Your task to perform on an android device: Open calendar and show me the third week of next month Image 0: 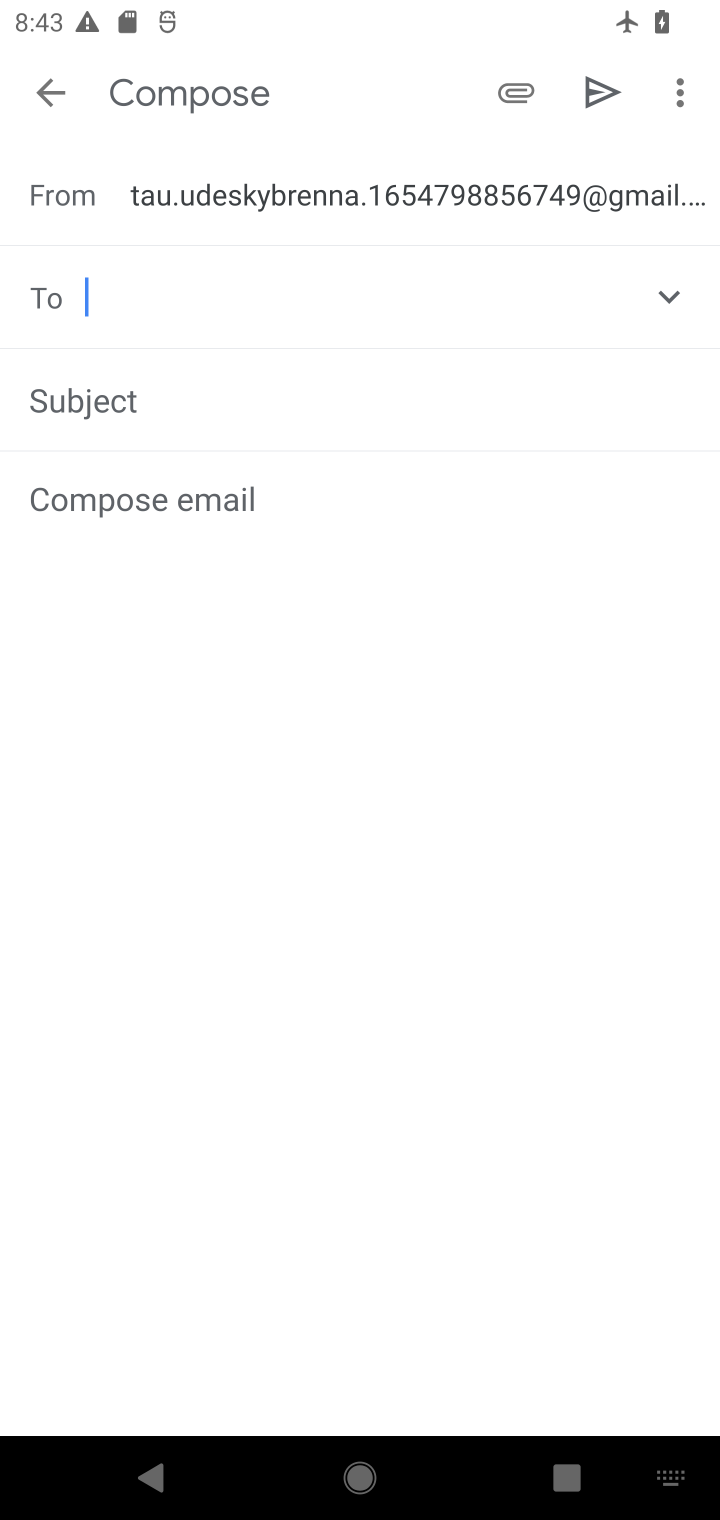
Step 0: press home button
Your task to perform on an android device: Open calendar and show me the third week of next month Image 1: 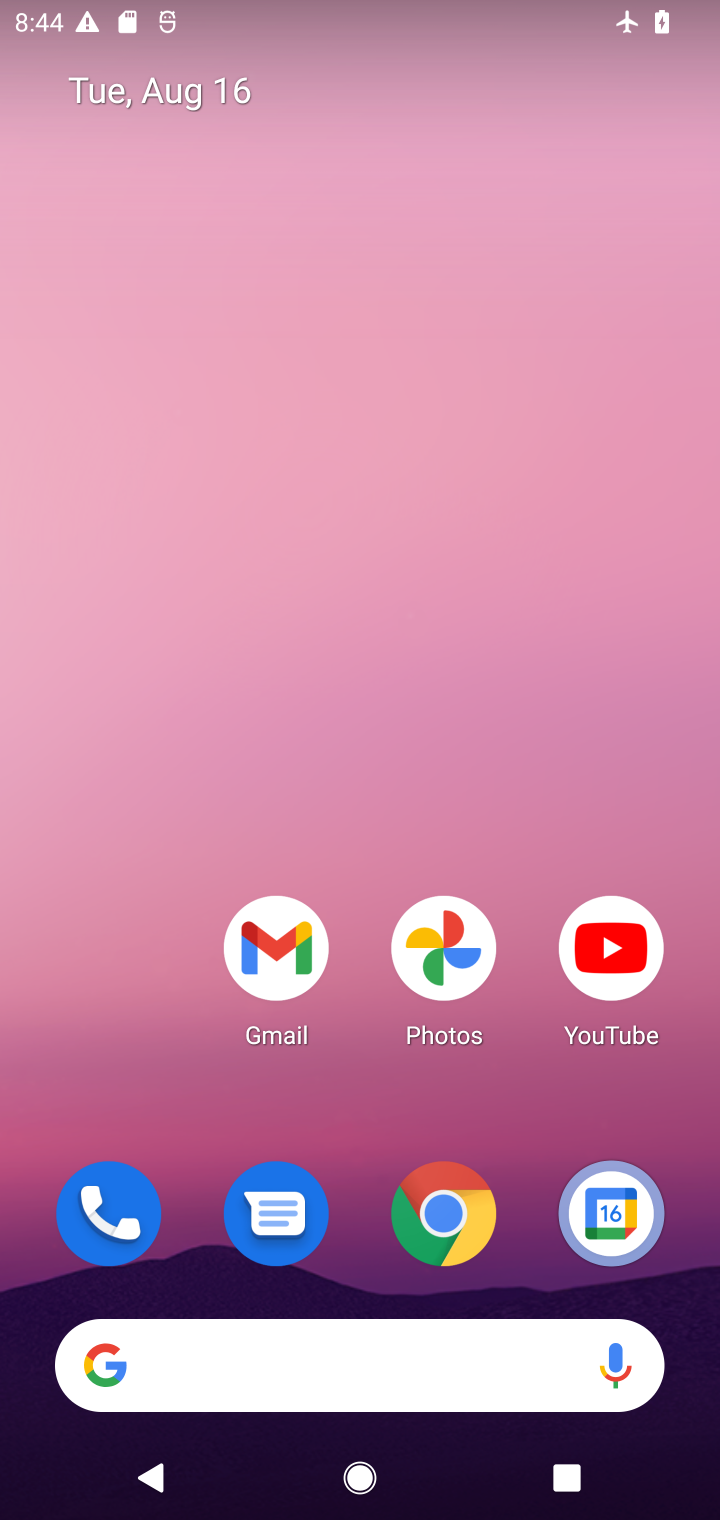
Step 1: drag from (226, 1081) to (445, 109)
Your task to perform on an android device: Open calendar and show me the third week of next month Image 2: 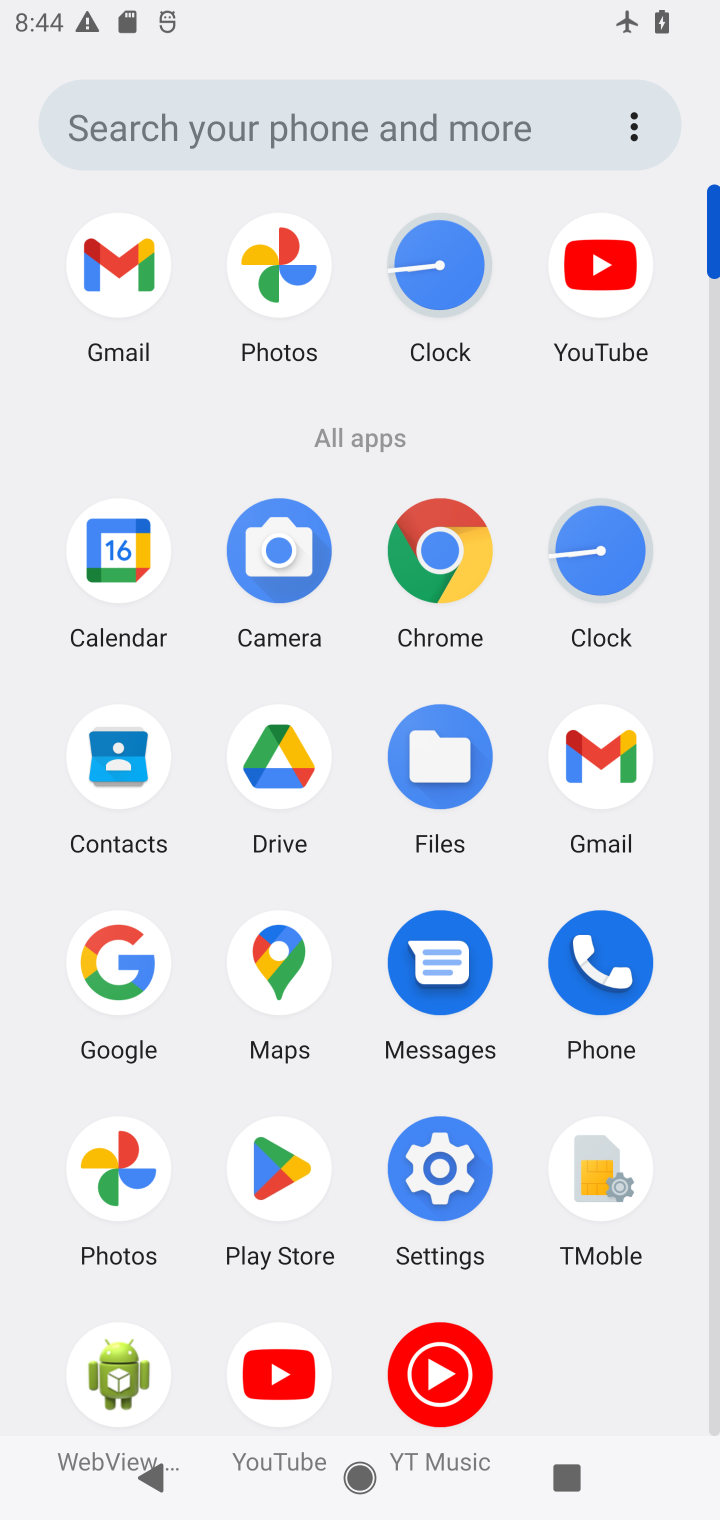
Step 2: click (133, 558)
Your task to perform on an android device: Open calendar and show me the third week of next month Image 3: 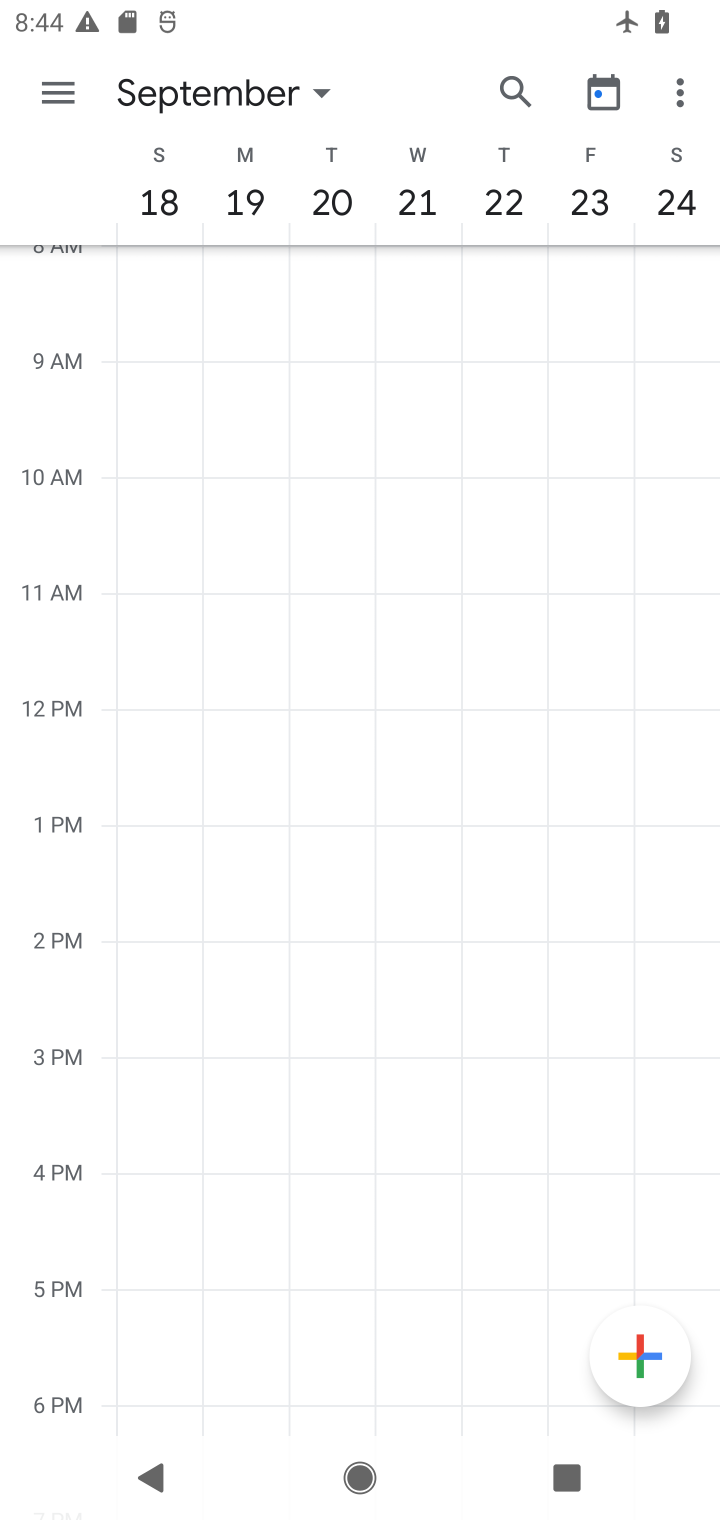
Step 3: task complete